Your task to perform on an android device: turn on javascript in the chrome app Image 0: 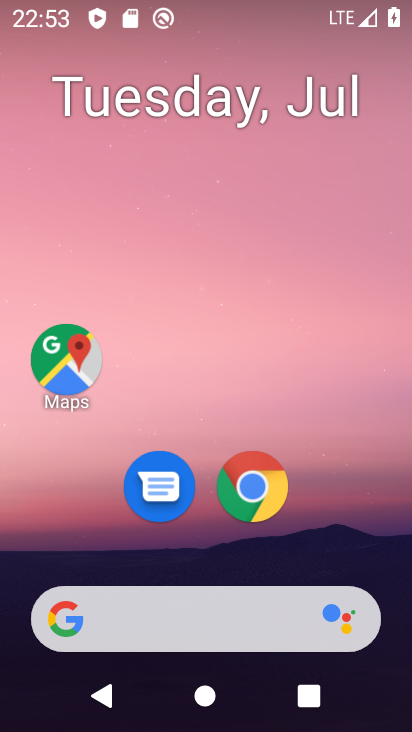
Step 0: press home button
Your task to perform on an android device: turn on javascript in the chrome app Image 1: 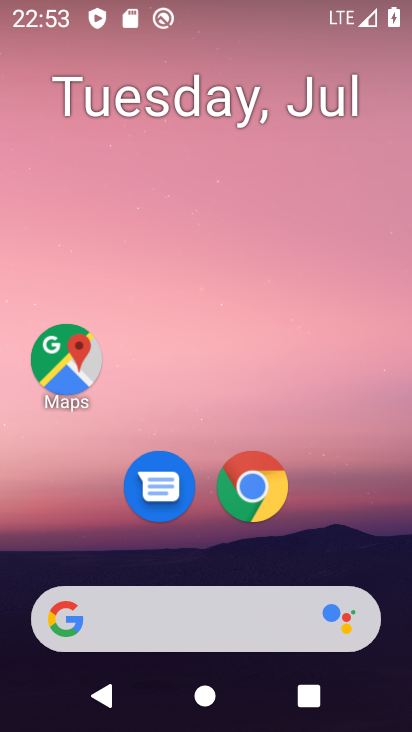
Step 1: drag from (355, 554) to (358, 148)
Your task to perform on an android device: turn on javascript in the chrome app Image 2: 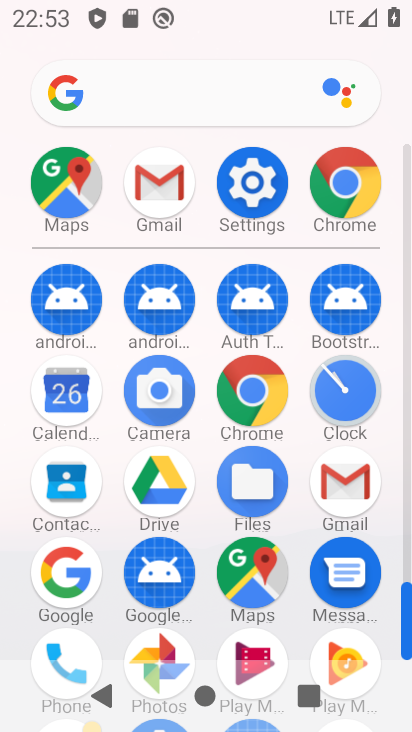
Step 2: click (250, 386)
Your task to perform on an android device: turn on javascript in the chrome app Image 3: 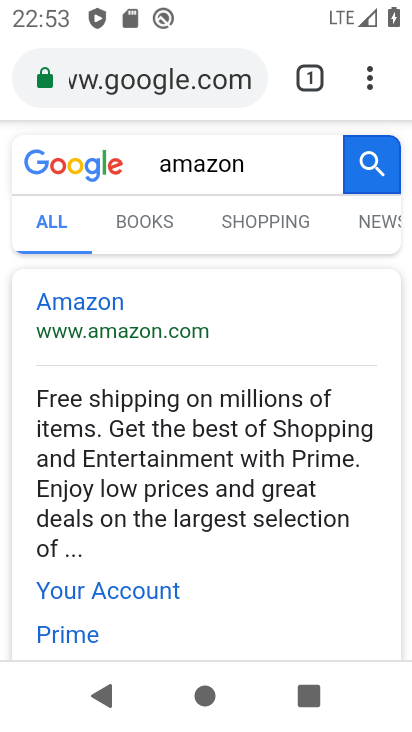
Step 3: click (369, 87)
Your task to perform on an android device: turn on javascript in the chrome app Image 4: 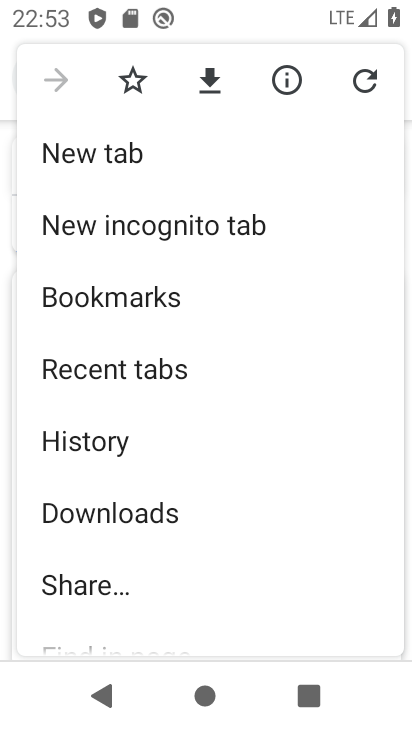
Step 4: drag from (339, 405) to (336, 325)
Your task to perform on an android device: turn on javascript in the chrome app Image 5: 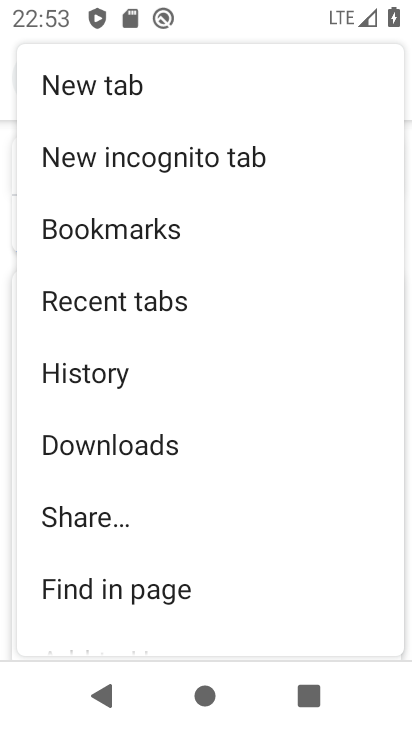
Step 5: drag from (322, 455) to (323, 393)
Your task to perform on an android device: turn on javascript in the chrome app Image 6: 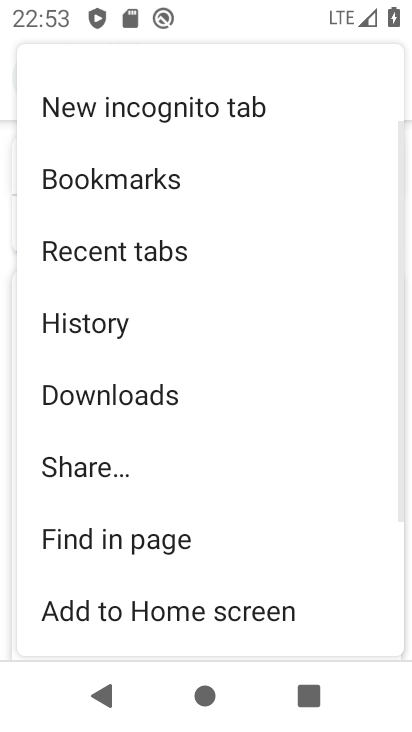
Step 6: drag from (313, 486) to (315, 397)
Your task to perform on an android device: turn on javascript in the chrome app Image 7: 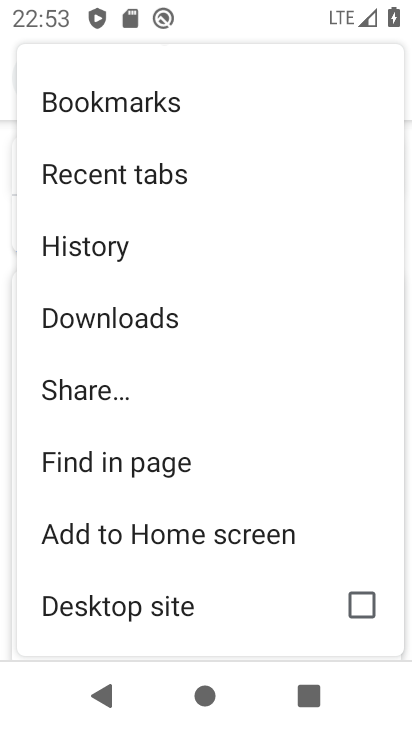
Step 7: drag from (314, 470) to (314, 386)
Your task to perform on an android device: turn on javascript in the chrome app Image 8: 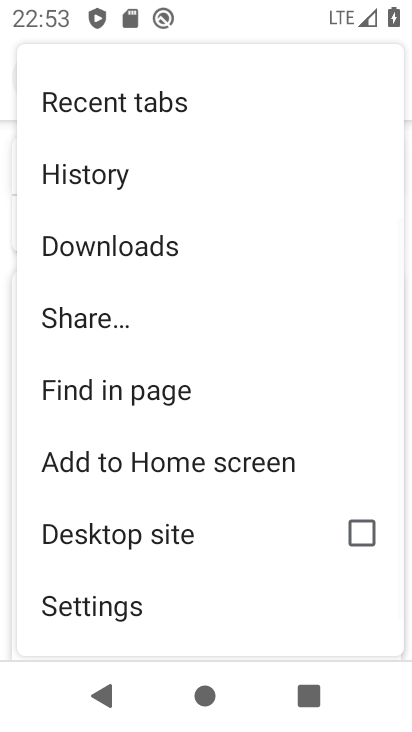
Step 8: drag from (307, 501) to (312, 410)
Your task to perform on an android device: turn on javascript in the chrome app Image 9: 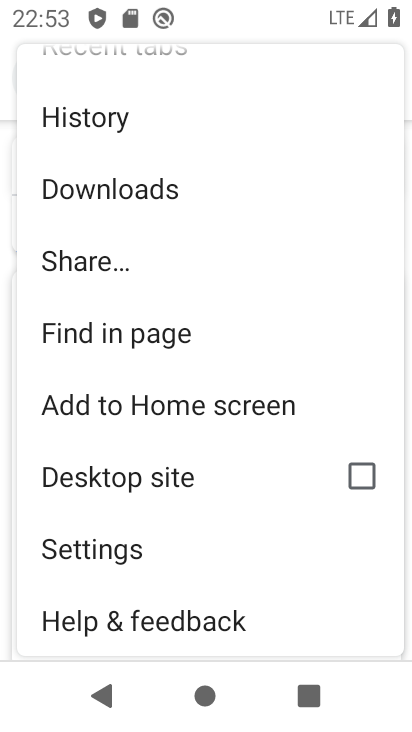
Step 9: click (250, 566)
Your task to perform on an android device: turn on javascript in the chrome app Image 10: 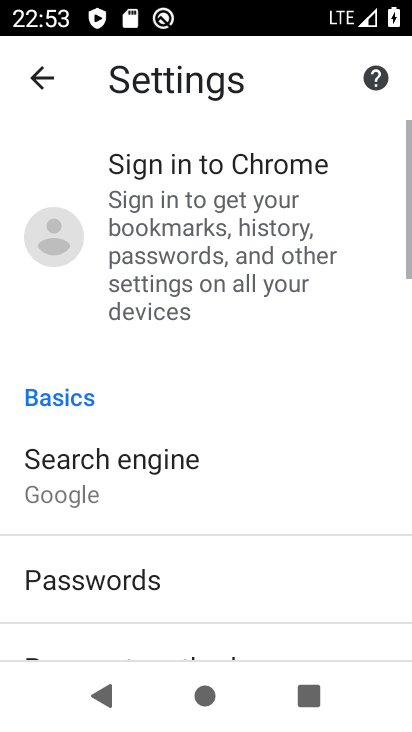
Step 10: drag from (305, 583) to (312, 517)
Your task to perform on an android device: turn on javascript in the chrome app Image 11: 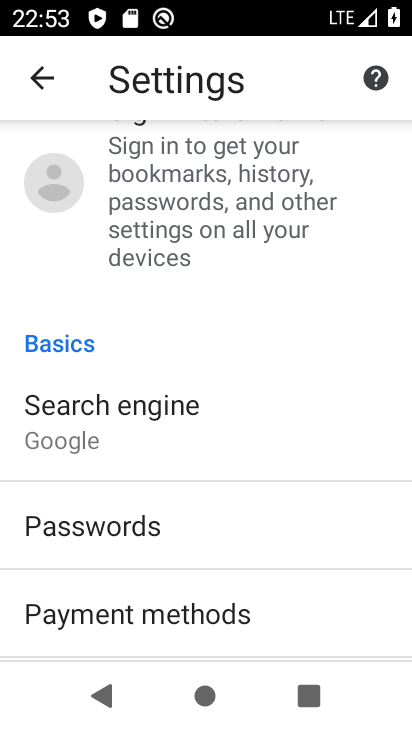
Step 11: drag from (325, 573) to (329, 495)
Your task to perform on an android device: turn on javascript in the chrome app Image 12: 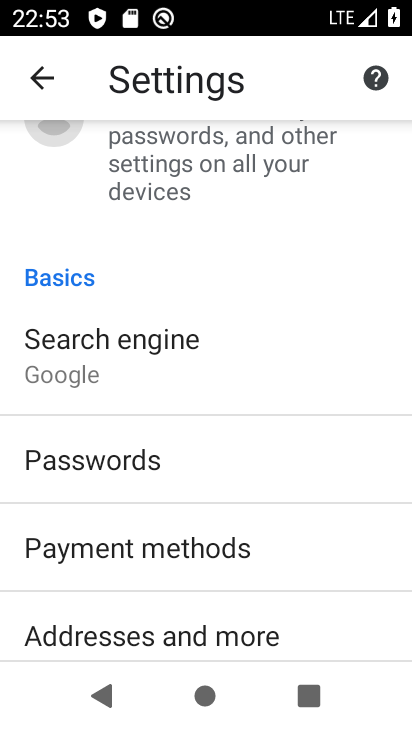
Step 12: drag from (329, 582) to (329, 520)
Your task to perform on an android device: turn on javascript in the chrome app Image 13: 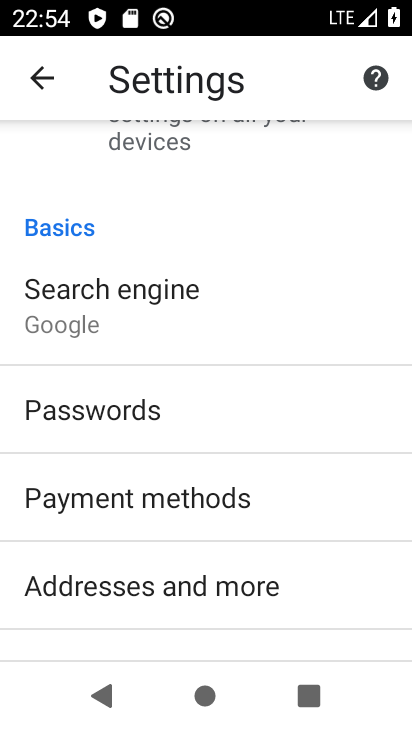
Step 13: drag from (325, 580) to (330, 497)
Your task to perform on an android device: turn on javascript in the chrome app Image 14: 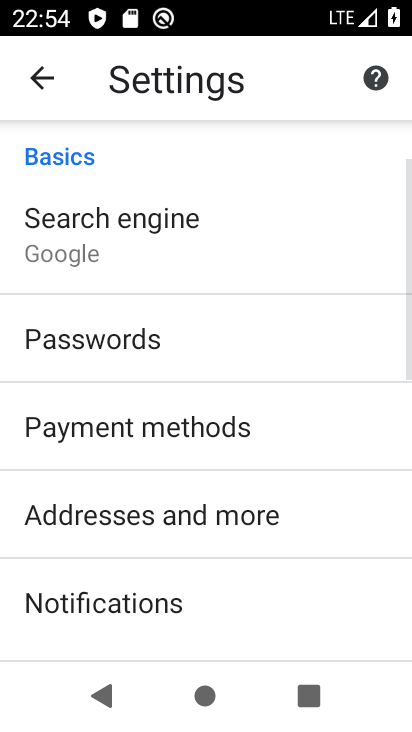
Step 14: drag from (330, 558) to (336, 484)
Your task to perform on an android device: turn on javascript in the chrome app Image 15: 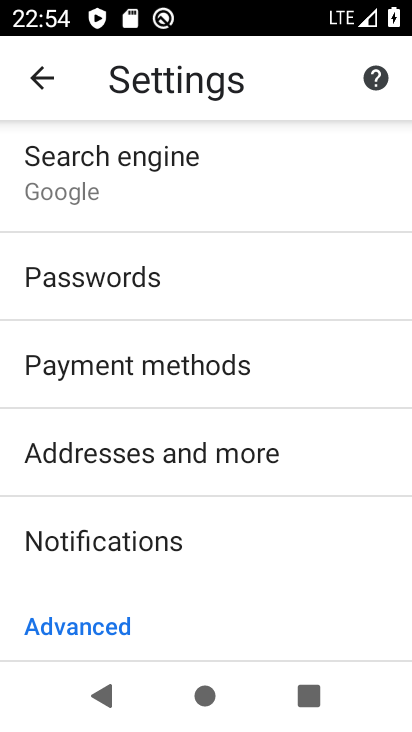
Step 15: drag from (335, 554) to (335, 483)
Your task to perform on an android device: turn on javascript in the chrome app Image 16: 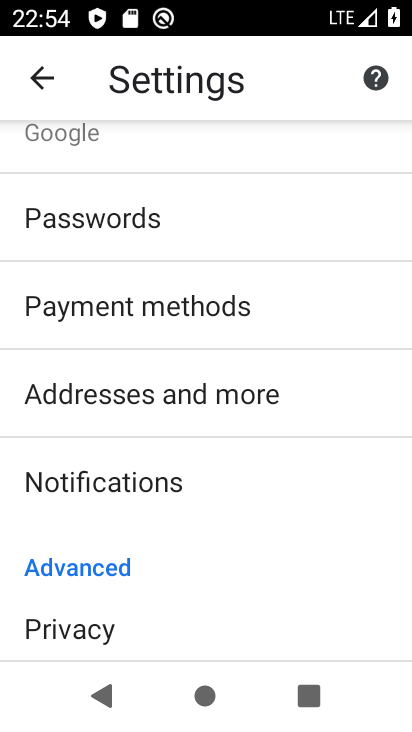
Step 16: drag from (324, 555) to (330, 475)
Your task to perform on an android device: turn on javascript in the chrome app Image 17: 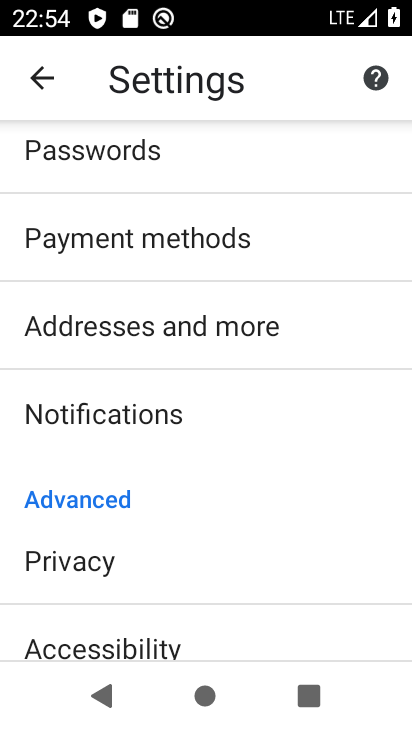
Step 17: drag from (334, 589) to (338, 498)
Your task to perform on an android device: turn on javascript in the chrome app Image 18: 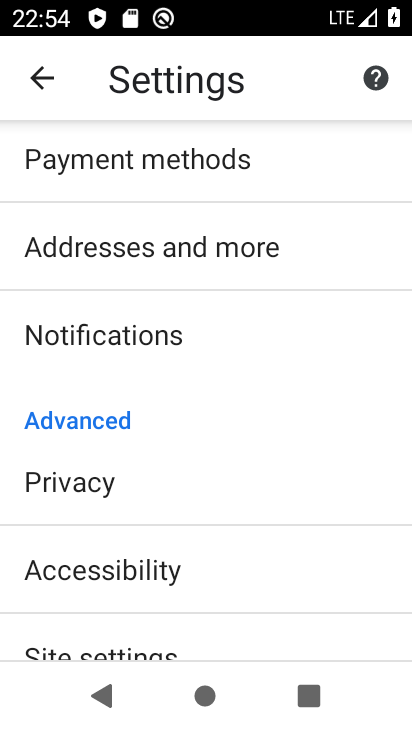
Step 18: drag from (333, 563) to (334, 480)
Your task to perform on an android device: turn on javascript in the chrome app Image 19: 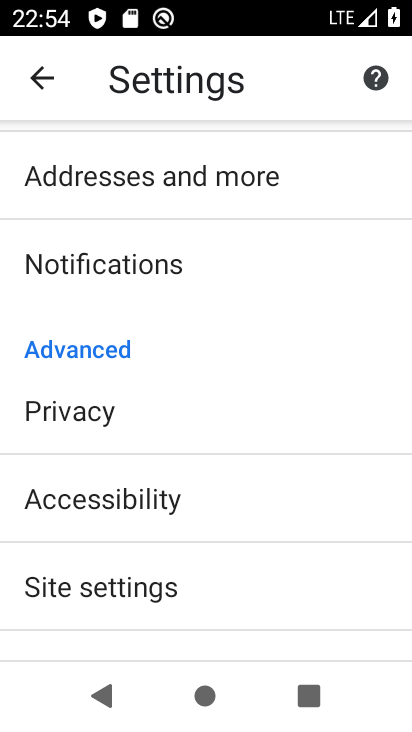
Step 19: drag from (331, 578) to (337, 495)
Your task to perform on an android device: turn on javascript in the chrome app Image 20: 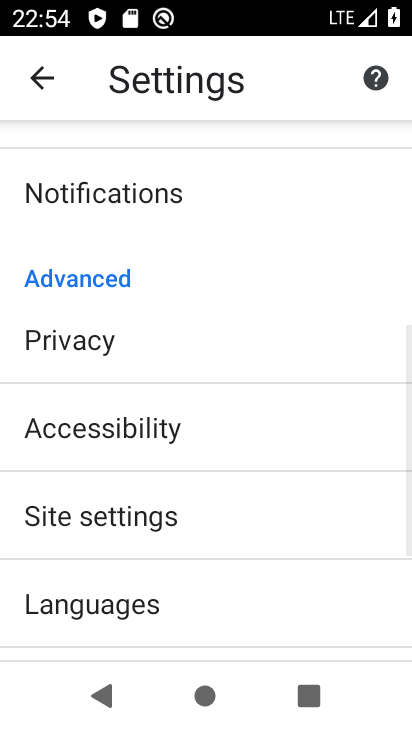
Step 20: drag from (328, 585) to (329, 501)
Your task to perform on an android device: turn on javascript in the chrome app Image 21: 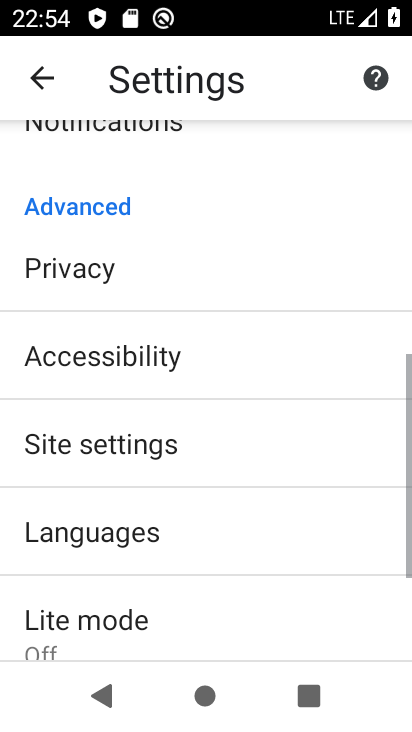
Step 21: drag from (317, 592) to (327, 518)
Your task to perform on an android device: turn on javascript in the chrome app Image 22: 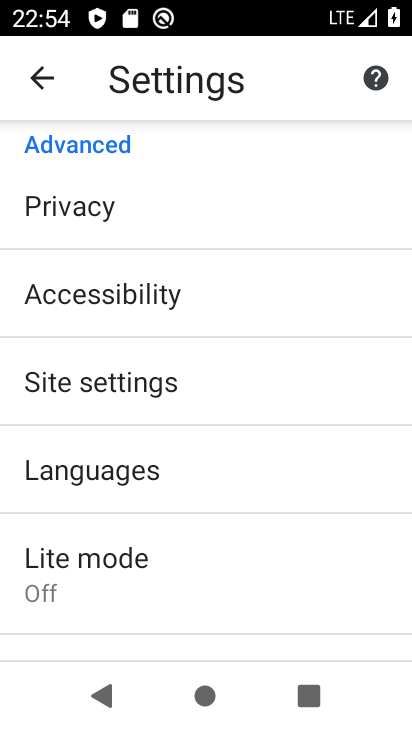
Step 22: drag from (317, 615) to (322, 512)
Your task to perform on an android device: turn on javascript in the chrome app Image 23: 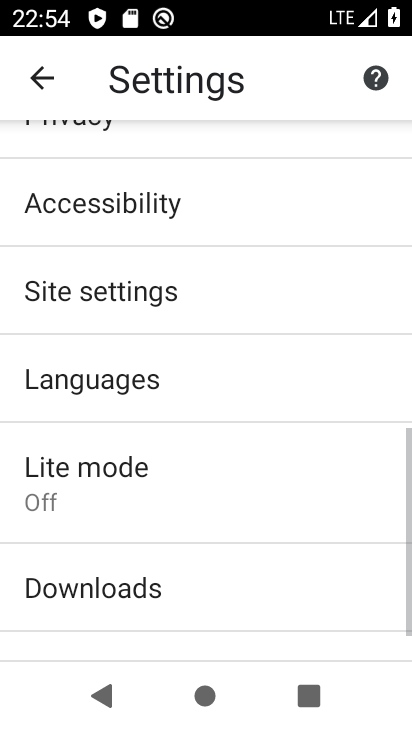
Step 23: drag from (304, 590) to (308, 518)
Your task to perform on an android device: turn on javascript in the chrome app Image 24: 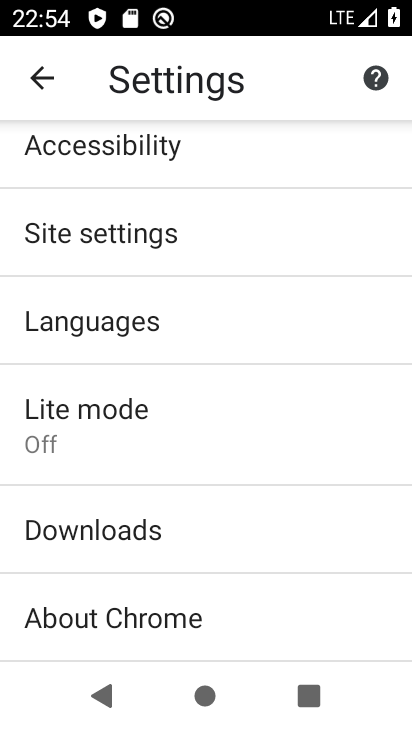
Step 24: click (342, 206)
Your task to perform on an android device: turn on javascript in the chrome app Image 25: 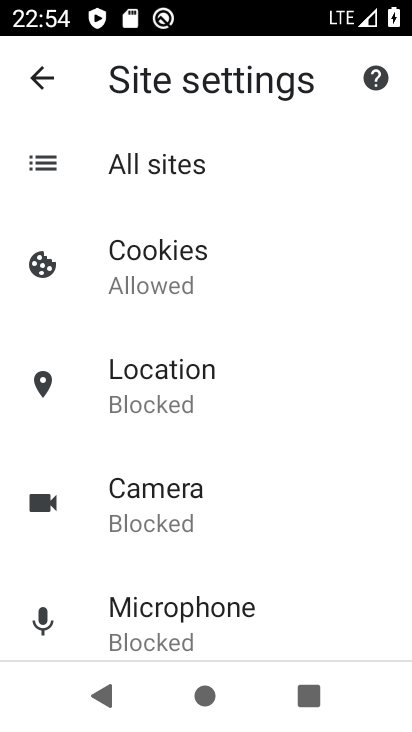
Step 25: drag from (305, 497) to (308, 422)
Your task to perform on an android device: turn on javascript in the chrome app Image 26: 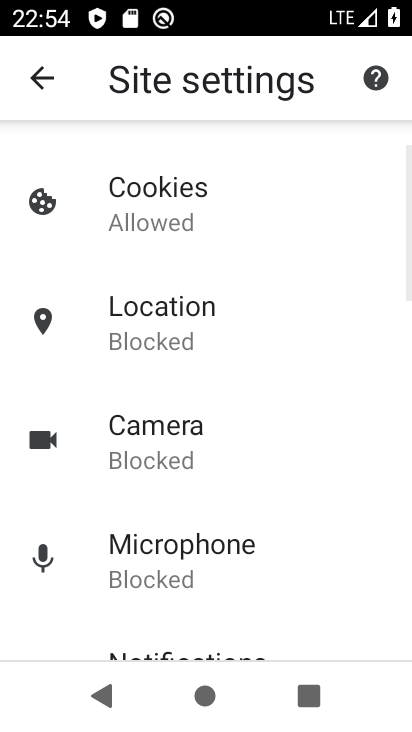
Step 26: drag from (296, 530) to (304, 453)
Your task to perform on an android device: turn on javascript in the chrome app Image 27: 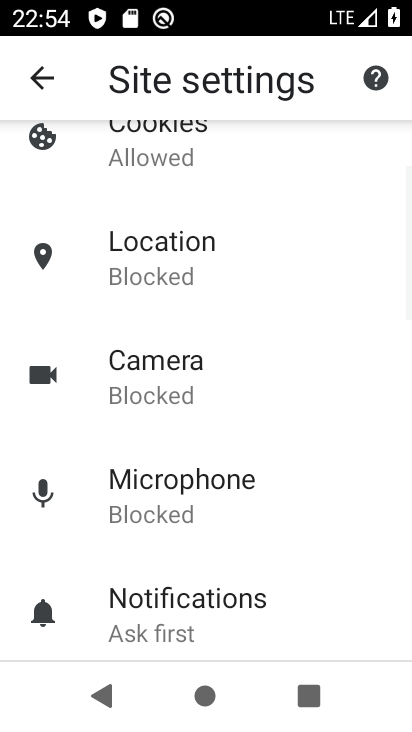
Step 27: drag from (306, 538) to (309, 453)
Your task to perform on an android device: turn on javascript in the chrome app Image 28: 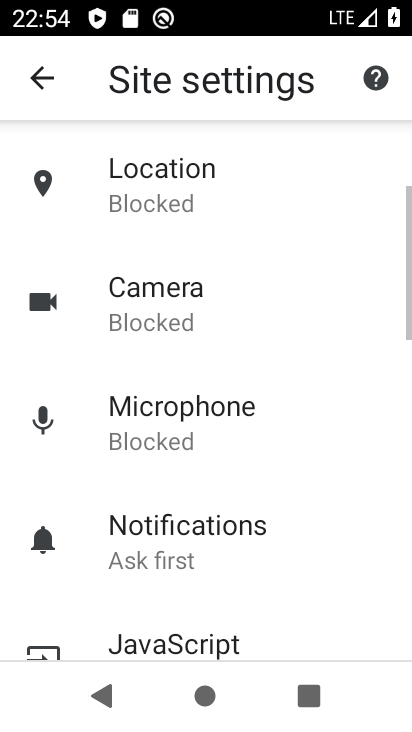
Step 28: drag from (314, 545) to (316, 450)
Your task to perform on an android device: turn on javascript in the chrome app Image 29: 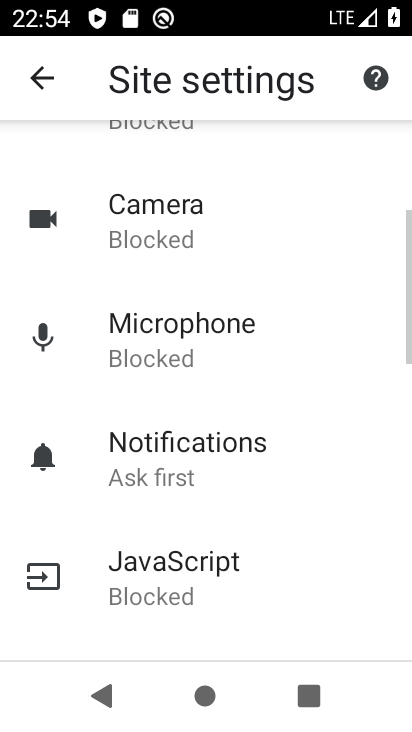
Step 29: drag from (319, 546) to (321, 453)
Your task to perform on an android device: turn on javascript in the chrome app Image 30: 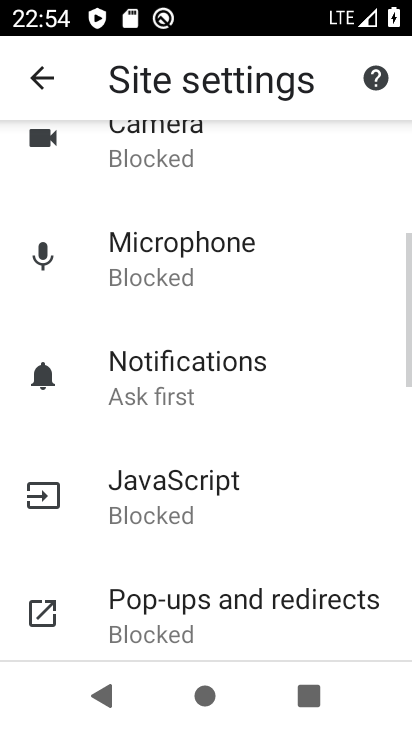
Step 30: drag from (310, 533) to (313, 445)
Your task to perform on an android device: turn on javascript in the chrome app Image 31: 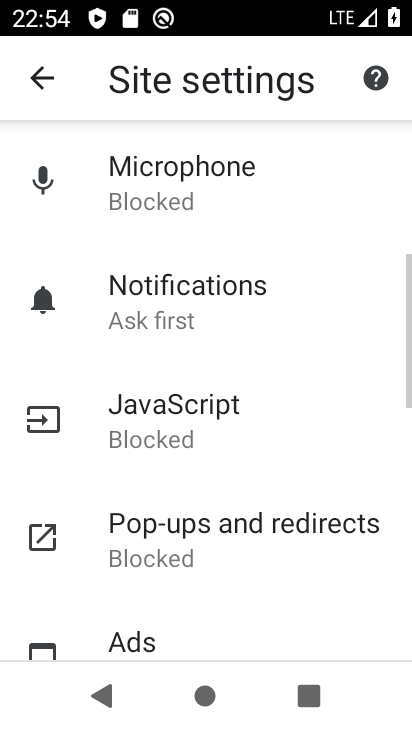
Step 31: drag from (316, 547) to (316, 455)
Your task to perform on an android device: turn on javascript in the chrome app Image 32: 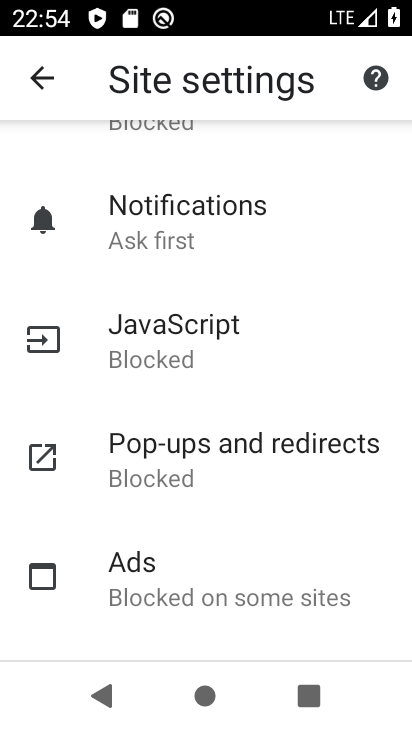
Step 32: drag from (305, 520) to (308, 443)
Your task to perform on an android device: turn on javascript in the chrome app Image 33: 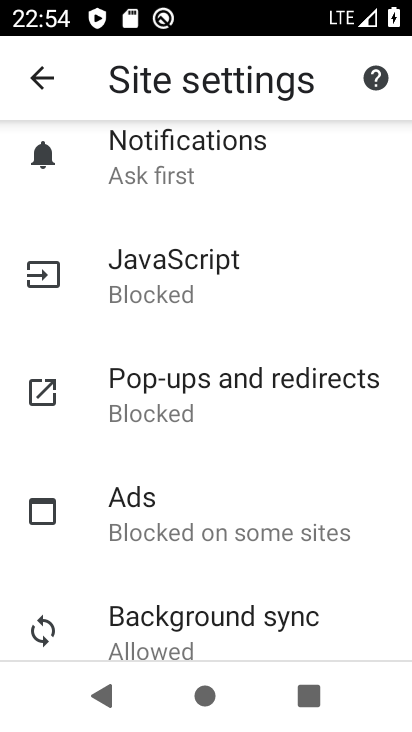
Step 33: click (221, 291)
Your task to perform on an android device: turn on javascript in the chrome app Image 34: 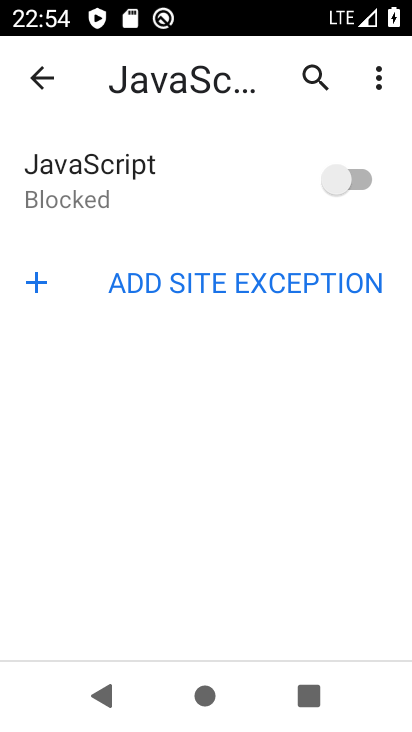
Step 34: click (341, 177)
Your task to perform on an android device: turn on javascript in the chrome app Image 35: 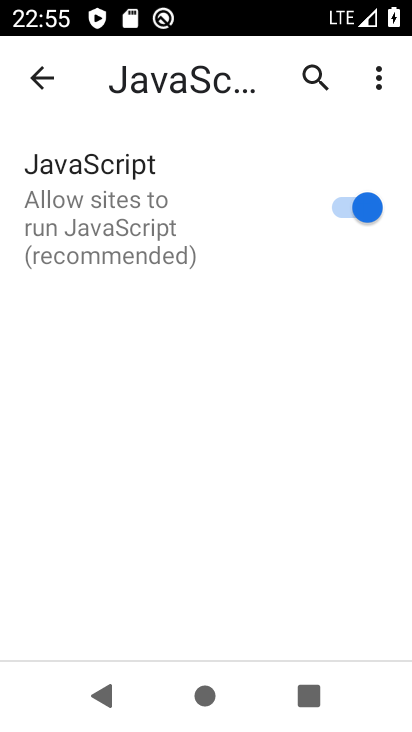
Step 35: task complete